Your task to perform on an android device: toggle notification dots Image 0: 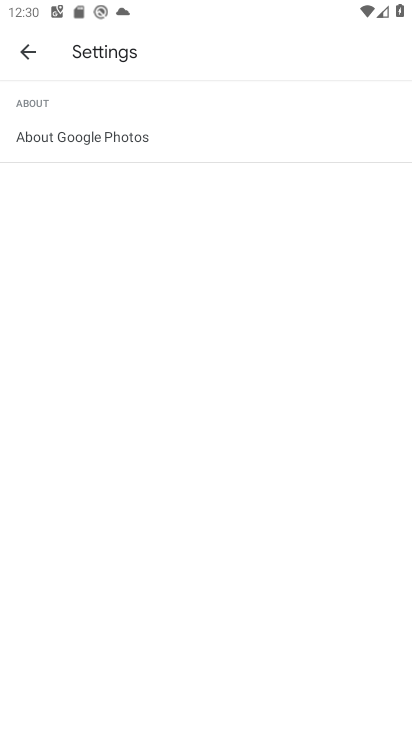
Step 0: press home button
Your task to perform on an android device: toggle notification dots Image 1: 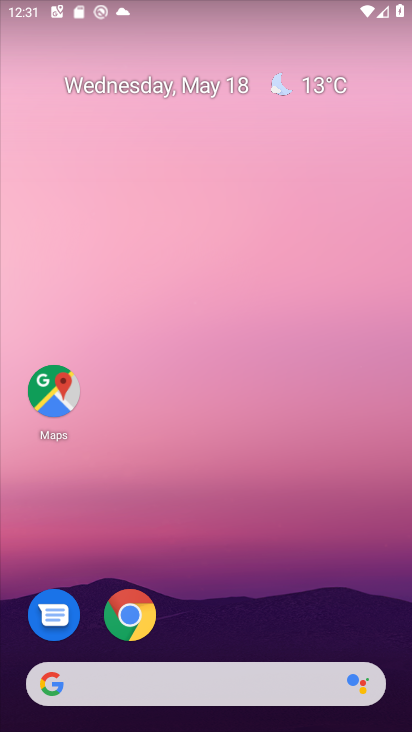
Step 1: drag from (396, 646) to (411, 548)
Your task to perform on an android device: toggle notification dots Image 2: 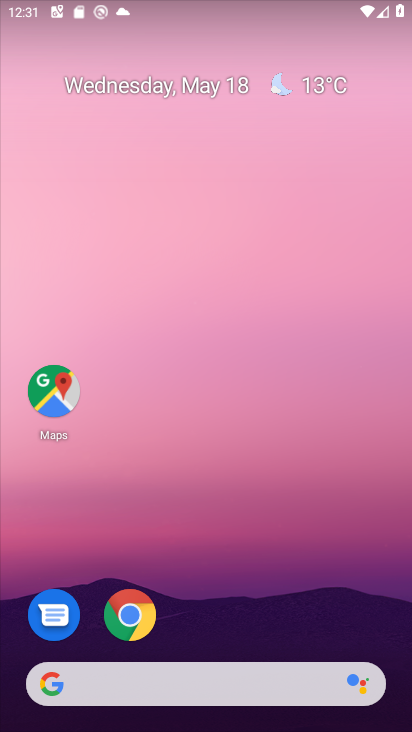
Step 2: drag from (404, 690) to (387, 355)
Your task to perform on an android device: toggle notification dots Image 3: 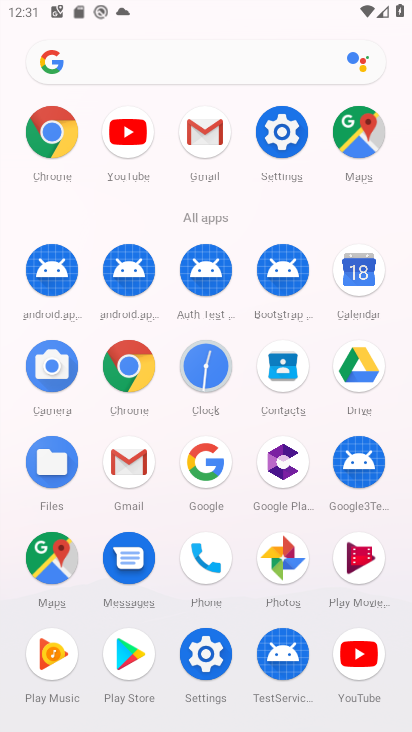
Step 3: click (272, 136)
Your task to perform on an android device: toggle notification dots Image 4: 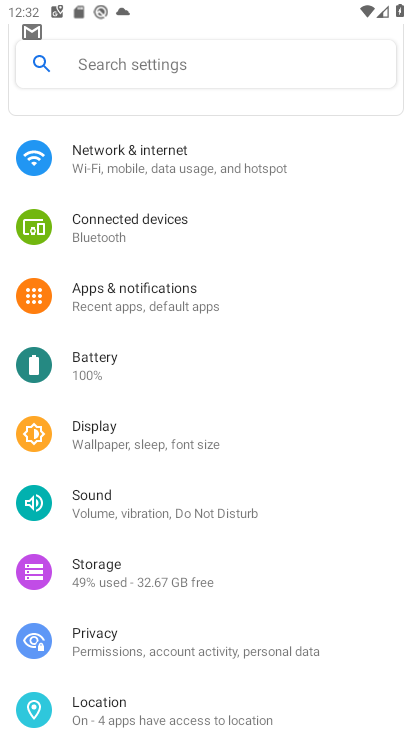
Step 4: click (136, 298)
Your task to perform on an android device: toggle notification dots Image 5: 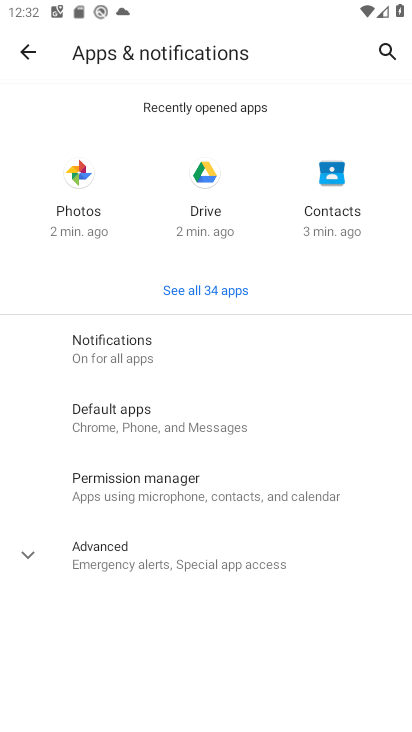
Step 5: click (115, 341)
Your task to perform on an android device: toggle notification dots Image 6: 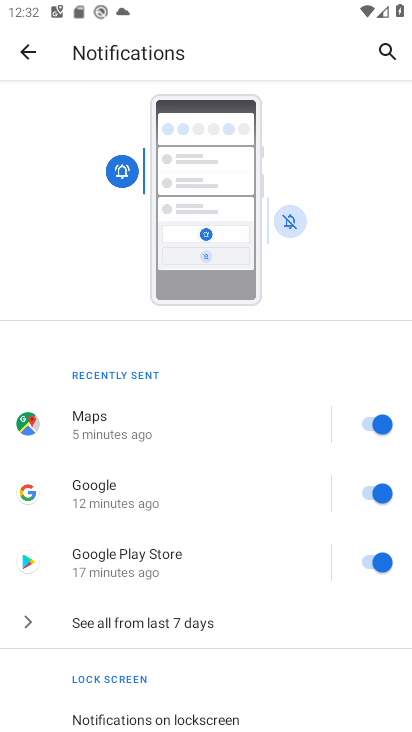
Step 6: drag from (283, 679) to (270, 419)
Your task to perform on an android device: toggle notification dots Image 7: 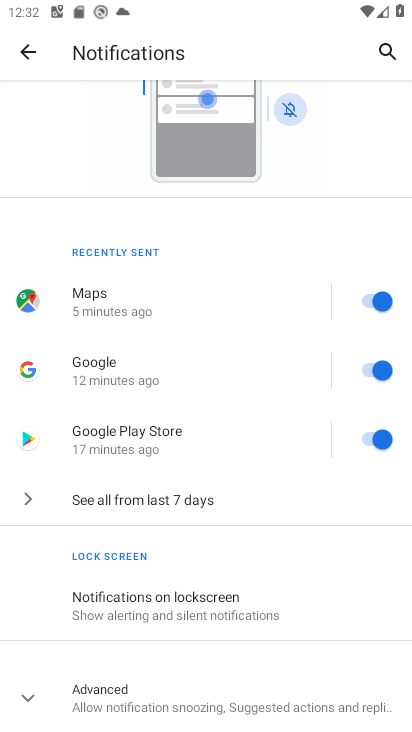
Step 7: drag from (257, 666) to (228, 386)
Your task to perform on an android device: toggle notification dots Image 8: 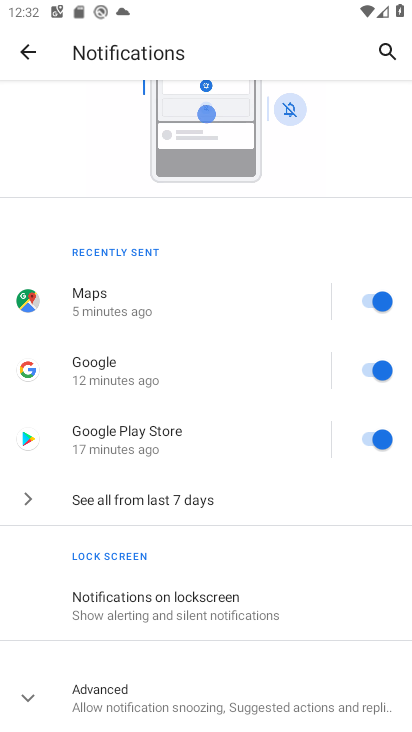
Step 8: drag from (261, 563) to (257, 494)
Your task to perform on an android device: toggle notification dots Image 9: 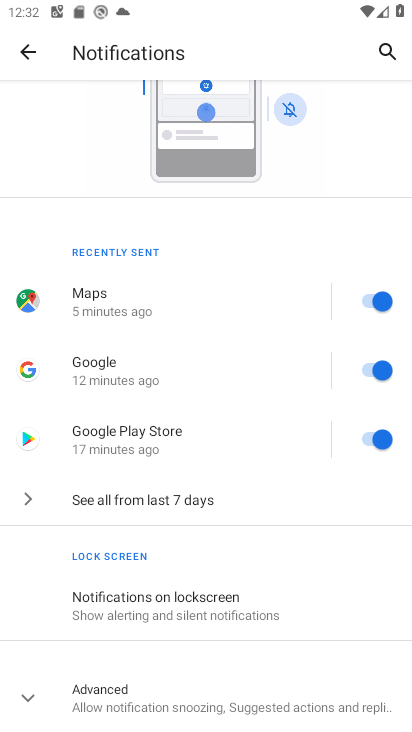
Step 9: drag from (249, 674) to (248, 430)
Your task to perform on an android device: toggle notification dots Image 10: 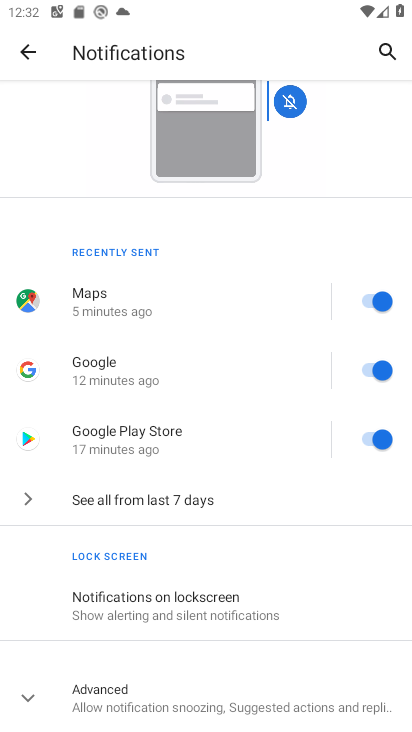
Step 10: click (80, 695)
Your task to perform on an android device: toggle notification dots Image 11: 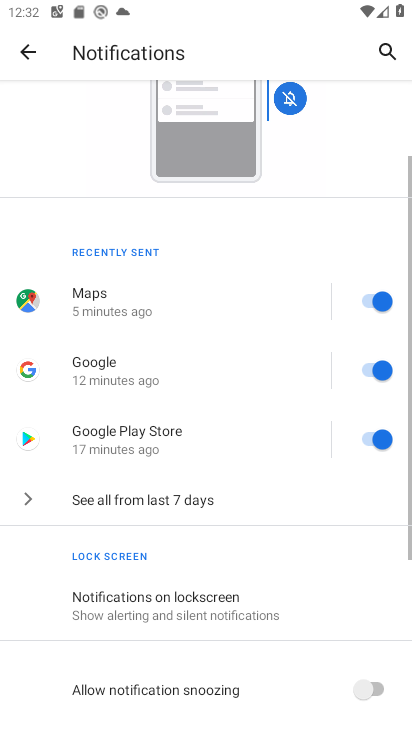
Step 11: drag from (266, 699) to (248, 338)
Your task to perform on an android device: toggle notification dots Image 12: 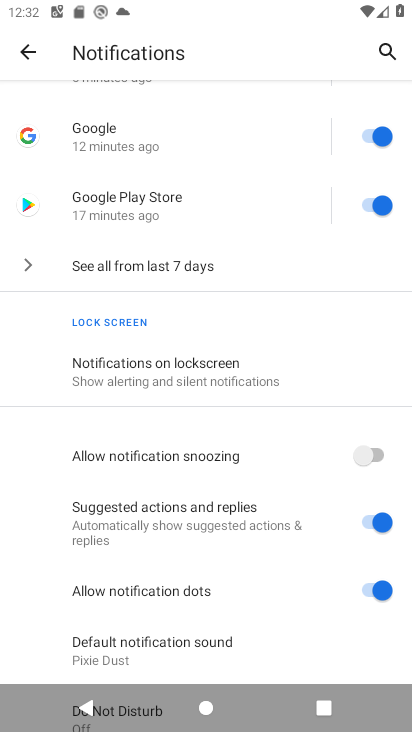
Step 12: drag from (284, 634) to (272, 276)
Your task to perform on an android device: toggle notification dots Image 13: 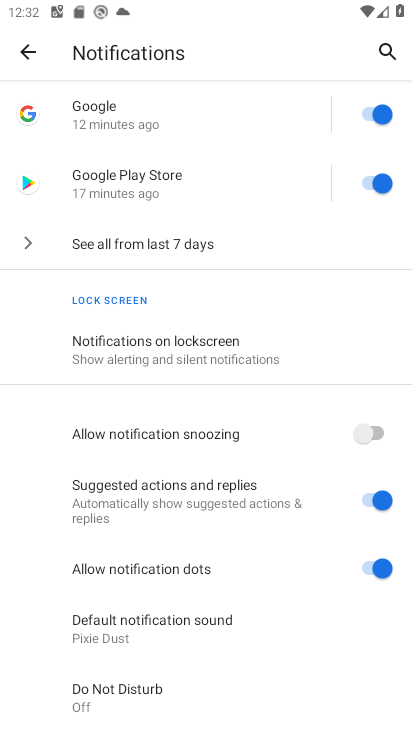
Step 13: click (369, 567)
Your task to perform on an android device: toggle notification dots Image 14: 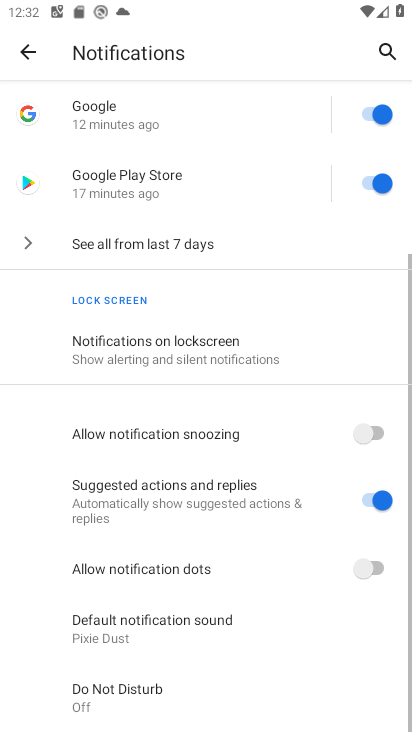
Step 14: task complete